Your task to perform on an android device: Clear the shopping cart on ebay.com. Search for "razer blade" on ebay.com, select the first entry, and add it to the cart. Image 0: 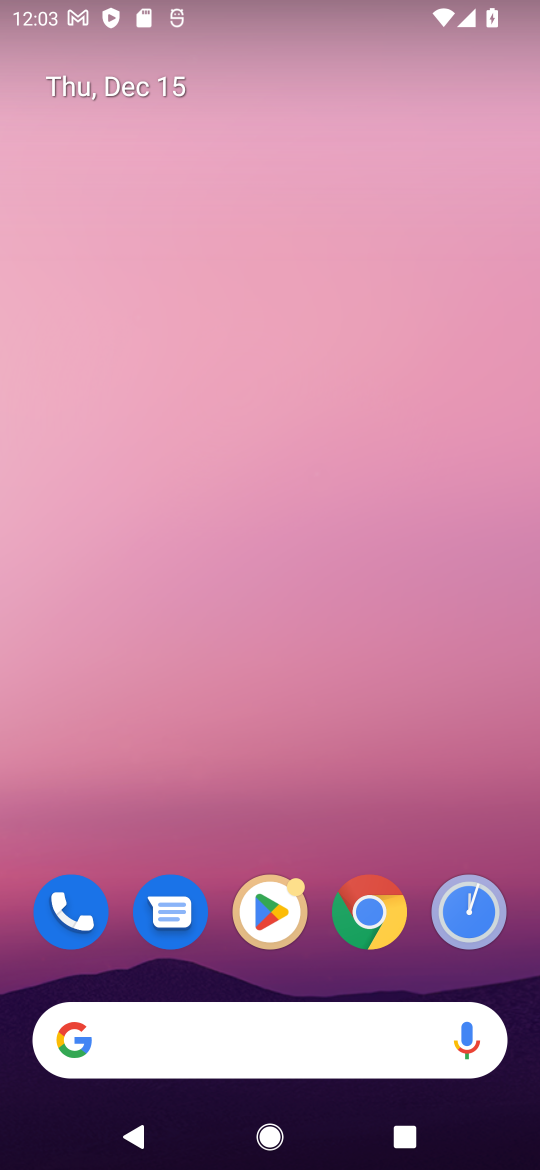
Step 0: drag from (288, 1011) to (323, 249)
Your task to perform on an android device: Clear the shopping cart on ebay.com. Search for "razer blade" on ebay.com, select the first entry, and add it to the cart. Image 1: 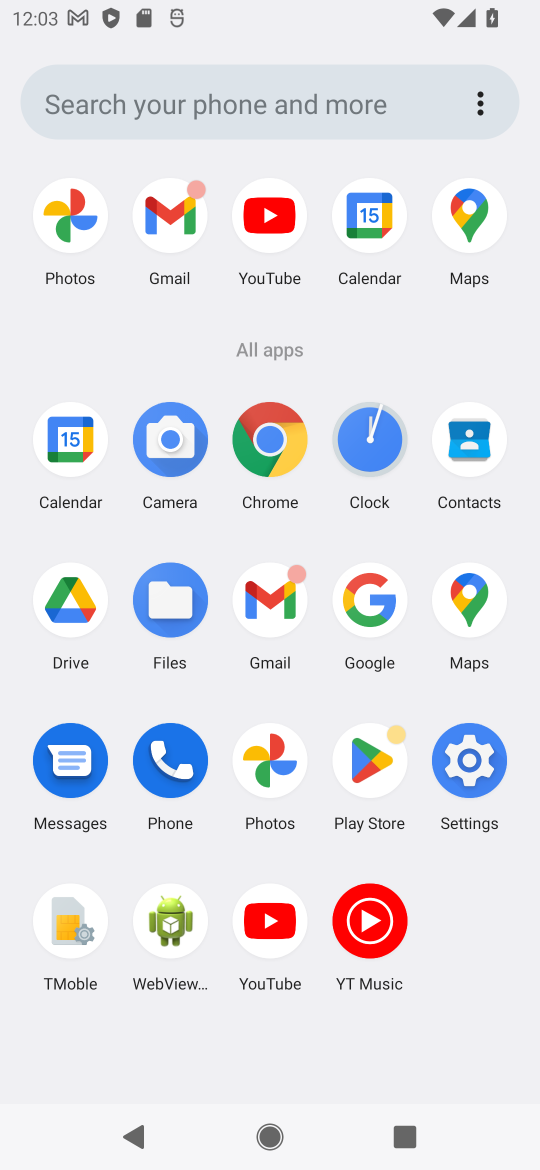
Step 1: click (382, 591)
Your task to perform on an android device: Clear the shopping cart on ebay.com. Search for "razer blade" on ebay.com, select the first entry, and add it to the cart. Image 2: 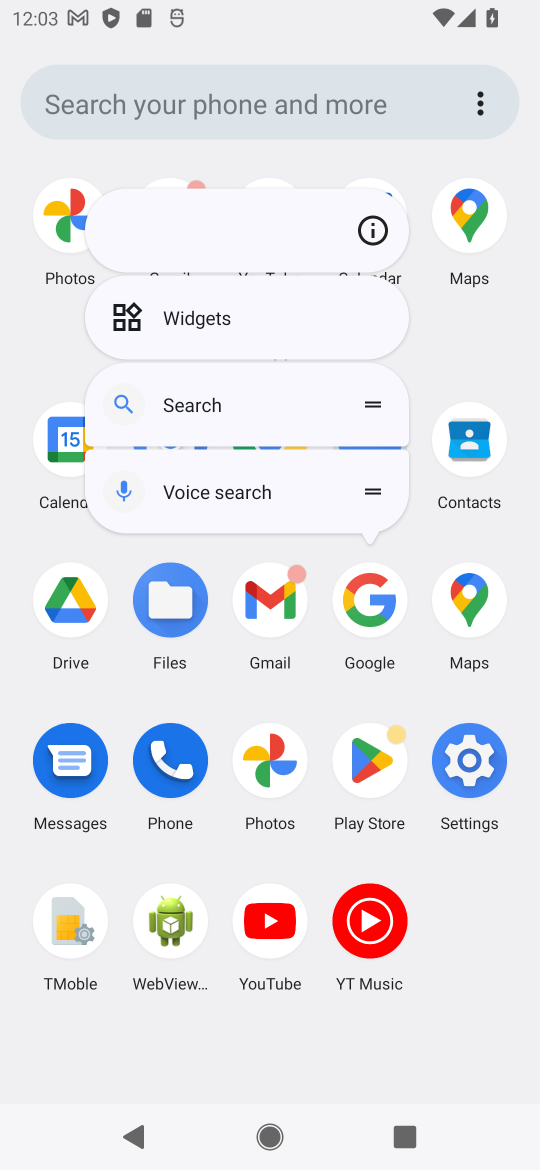
Step 2: click (373, 612)
Your task to perform on an android device: Clear the shopping cart on ebay.com. Search for "razer blade" on ebay.com, select the first entry, and add it to the cart. Image 3: 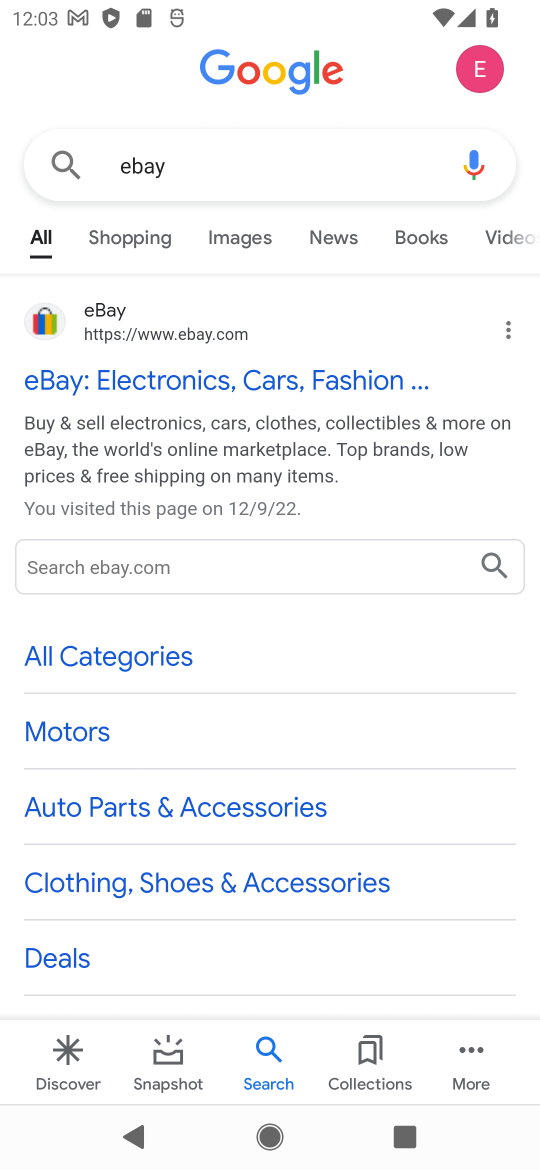
Step 3: click (139, 395)
Your task to perform on an android device: Clear the shopping cart on ebay.com. Search for "razer blade" on ebay.com, select the first entry, and add it to the cart. Image 4: 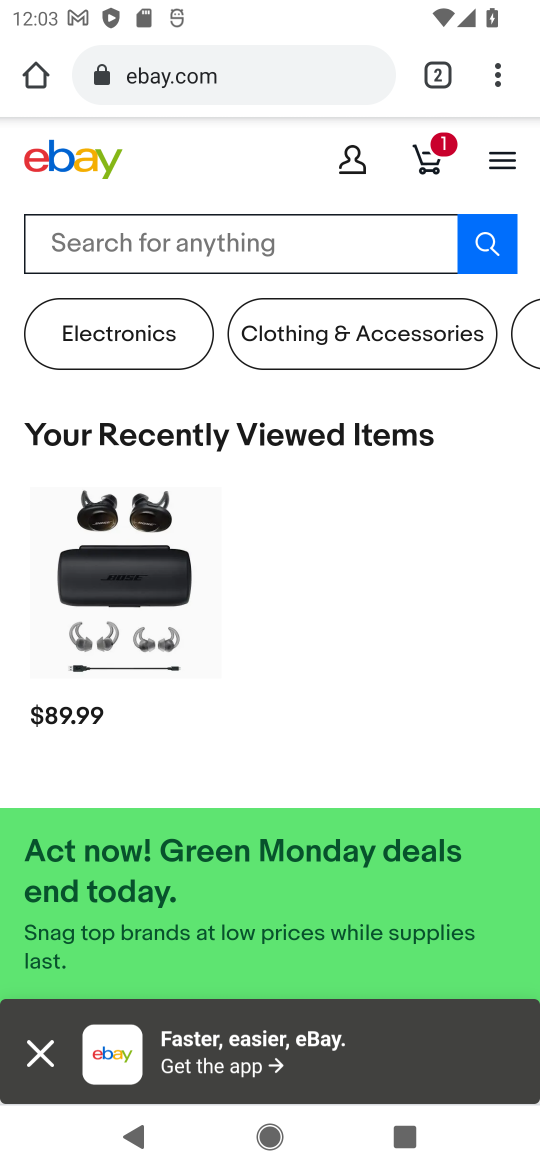
Step 4: click (107, 234)
Your task to perform on an android device: Clear the shopping cart on ebay.com. Search for "razer blade" on ebay.com, select the first entry, and add it to the cart. Image 5: 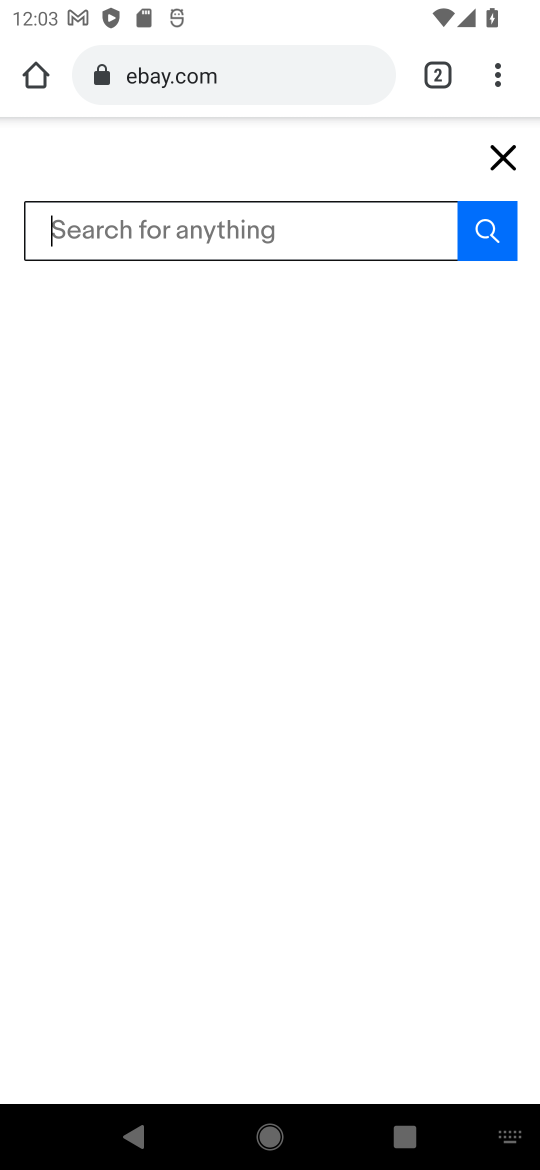
Step 5: type "razer blade"
Your task to perform on an android device: Clear the shopping cart on ebay.com. Search for "razer blade" on ebay.com, select the first entry, and add it to the cart. Image 6: 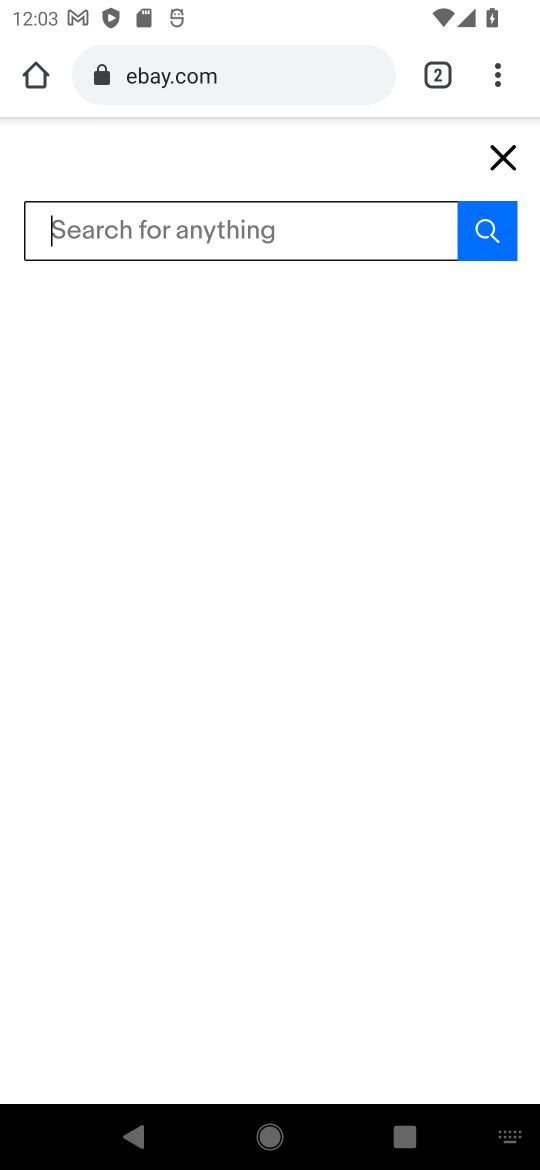
Step 6: click (490, 231)
Your task to perform on an android device: Clear the shopping cart on ebay.com. Search for "razer blade" on ebay.com, select the first entry, and add it to the cart. Image 7: 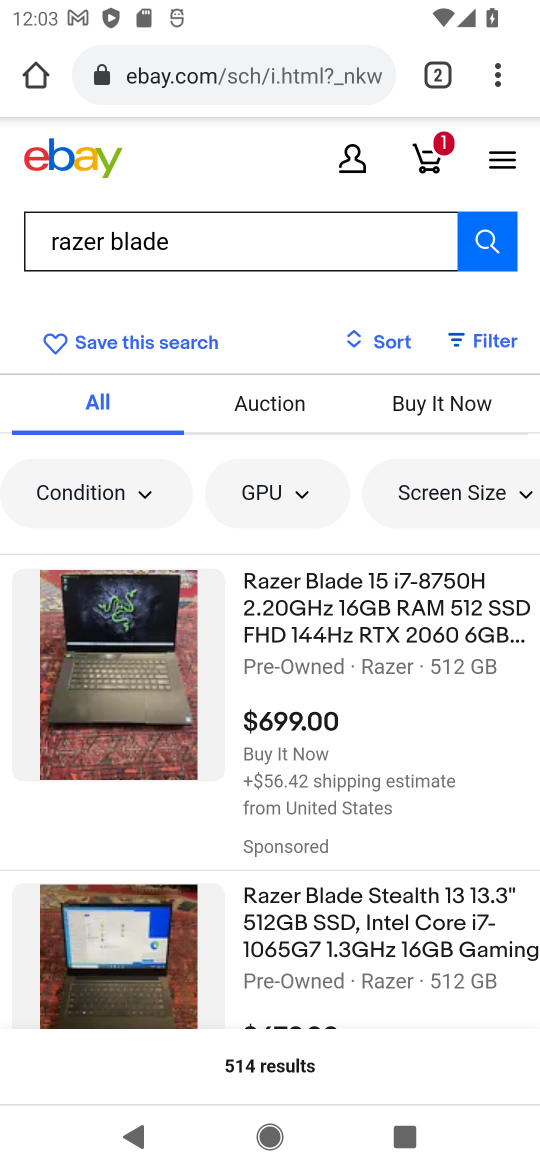
Step 7: click (323, 599)
Your task to perform on an android device: Clear the shopping cart on ebay.com. Search for "razer blade" on ebay.com, select the first entry, and add it to the cart. Image 8: 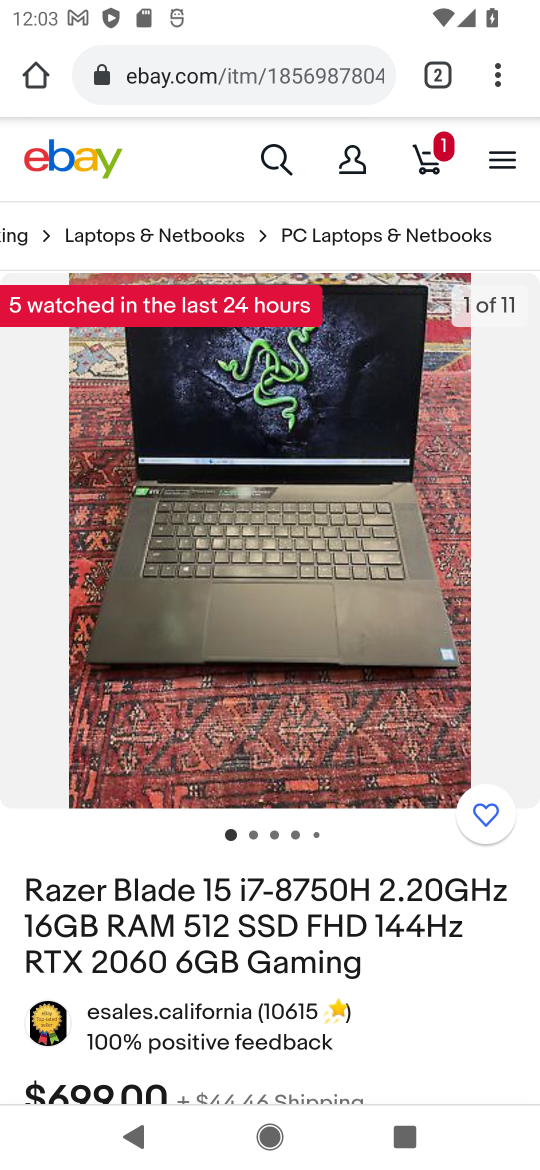
Step 8: drag from (211, 910) to (200, 477)
Your task to perform on an android device: Clear the shopping cart on ebay.com. Search for "razer blade" on ebay.com, select the first entry, and add it to the cart. Image 9: 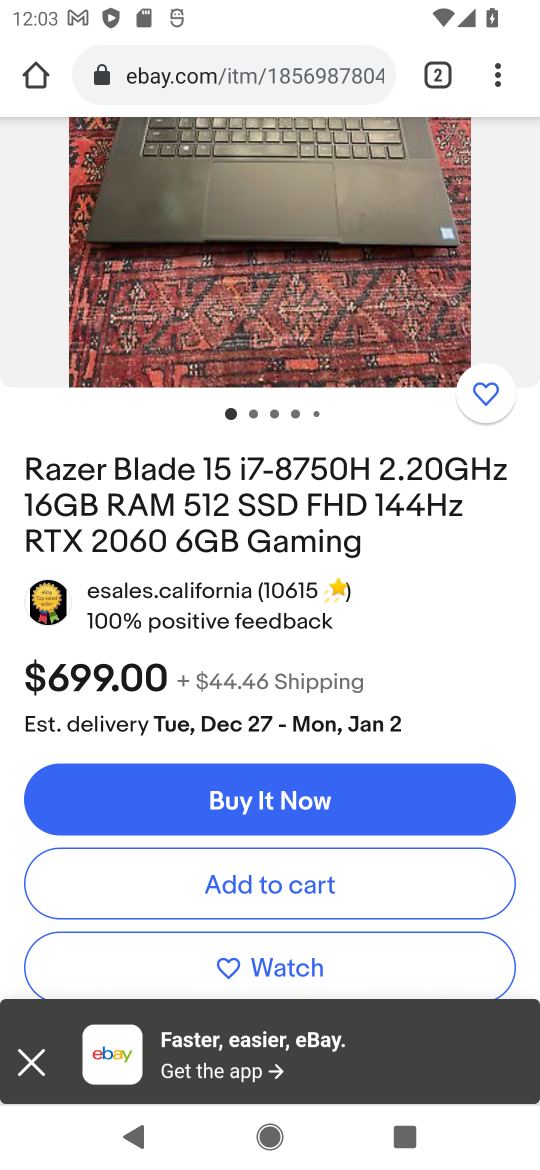
Step 9: click (268, 882)
Your task to perform on an android device: Clear the shopping cart on ebay.com. Search for "razer blade" on ebay.com, select the first entry, and add it to the cart. Image 10: 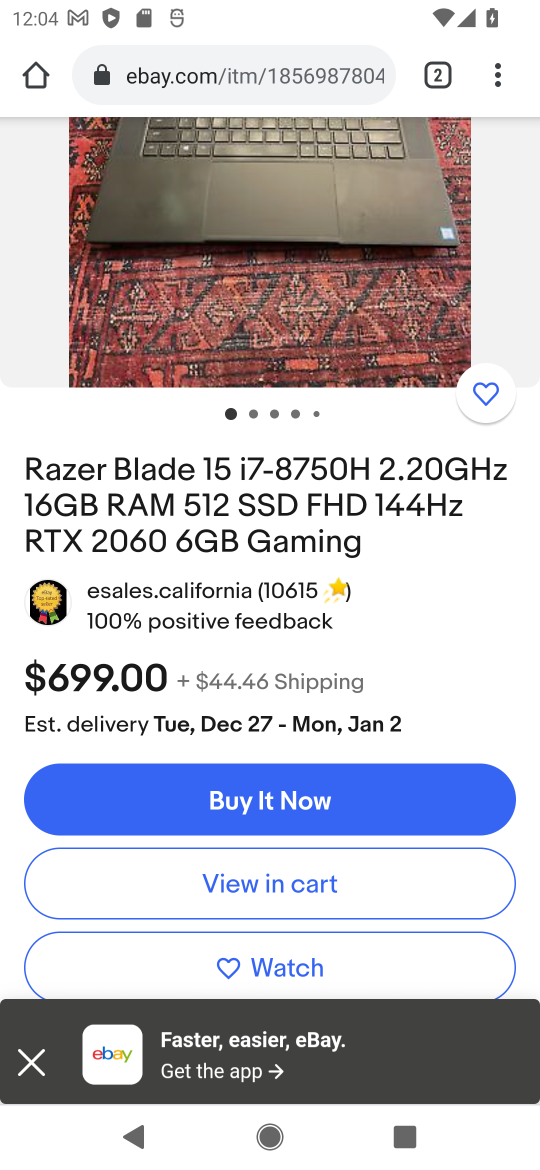
Step 10: click (268, 882)
Your task to perform on an android device: Clear the shopping cart on ebay.com. Search for "razer blade" on ebay.com, select the first entry, and add it to the cart. Image 11: 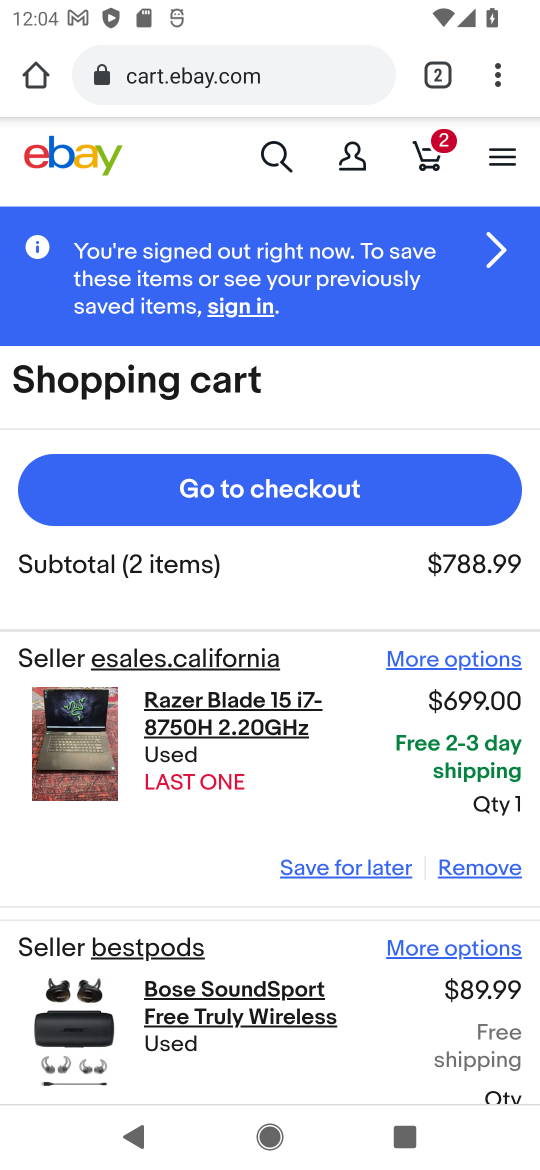
Step 11: click (252, 498)
Your task to perform on an android device: Clear the shopping cart on ebay.com. Search for "razer blade" on ebay.com, select the first entry, and add it to the cart. Image 12: 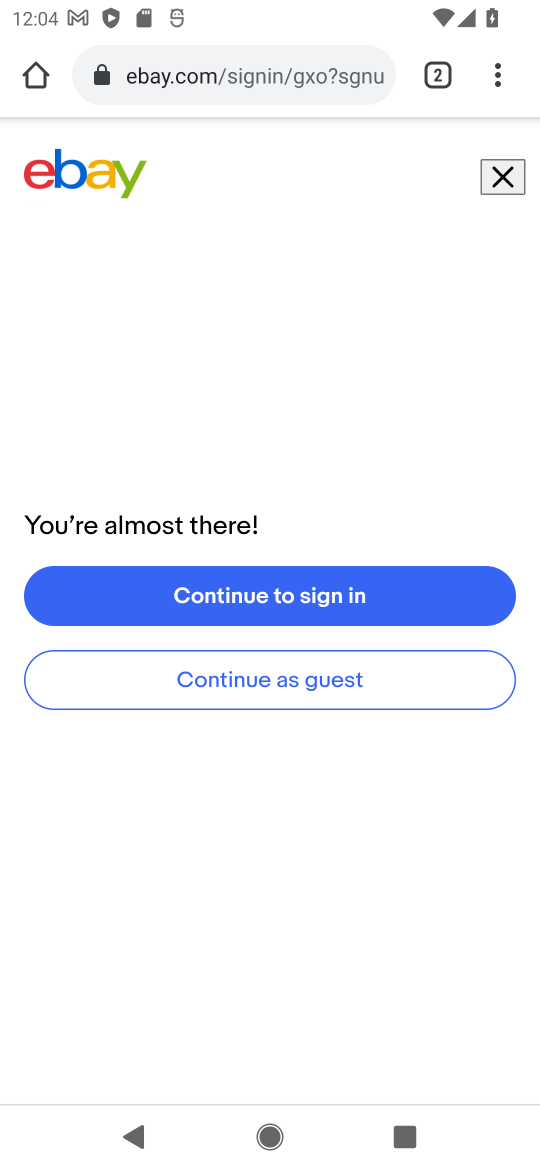
Step 12: task complete